Your task to perform on an android device: create a new album in the google photos Image 0: 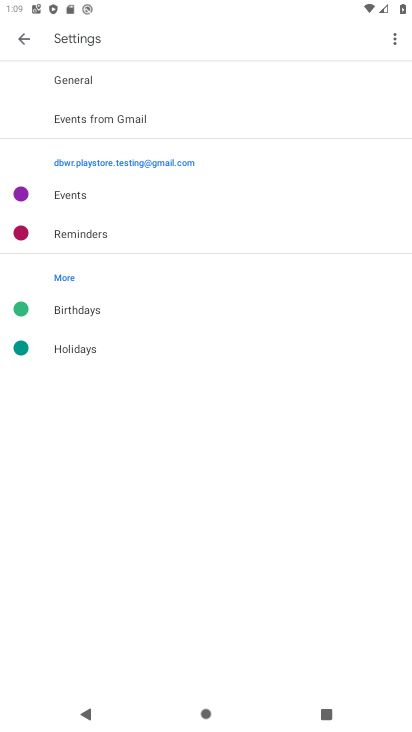
Step 0: press home button
Your task to perform on an android device: create a new album in the google photos Image 1: 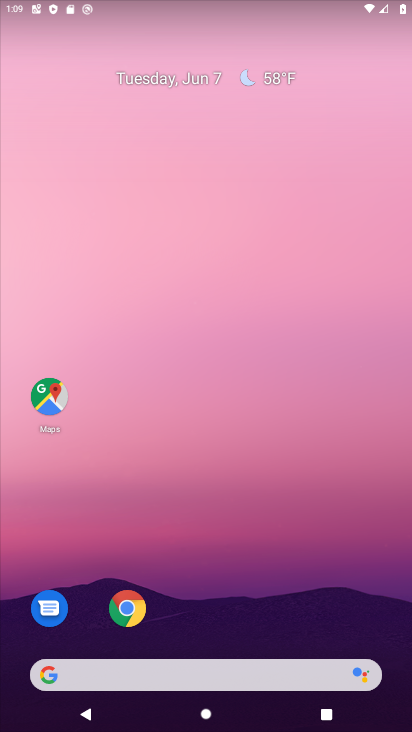
Step 1: drag from (299, 548) to (300, 75)
Your task to perform on an android device: create a new album in the google photos Image 2: 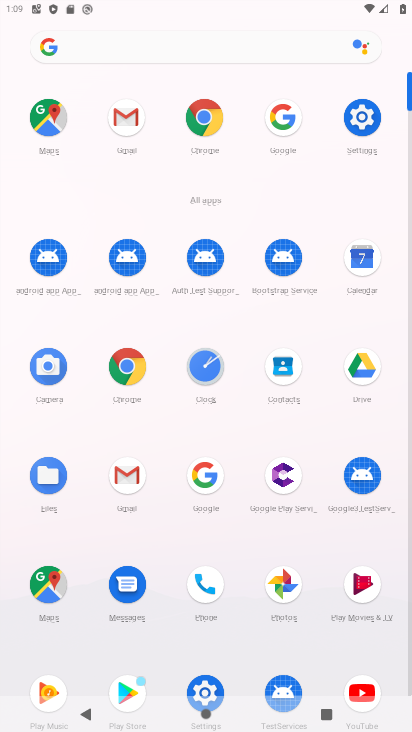
Step 2: click (288, 575)
Your task to perform on an android device: create a new album in the google photos Image 3: 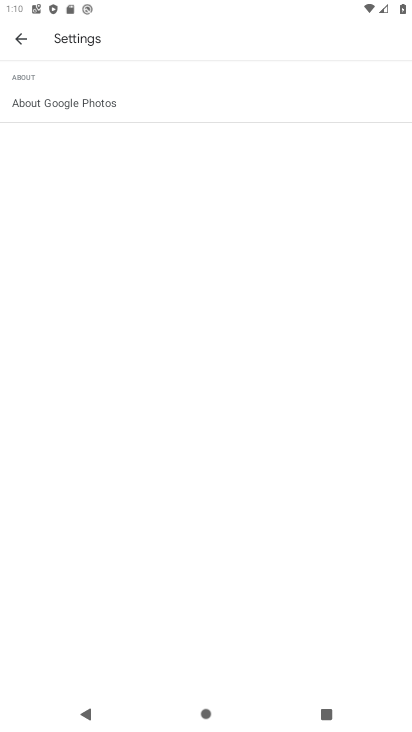
Step 3: click (27, 34)
Your task to perform on an android device: create a new album in the google photos Image 4: 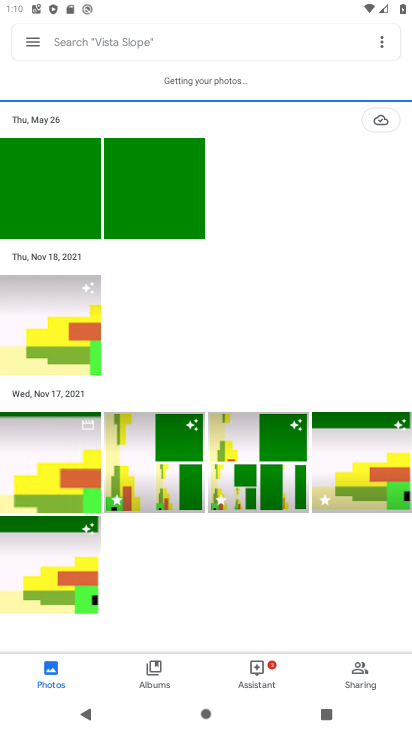
Step 4: click (161, 671)
Your task to perform on an android device: create a new album in the google photos Image 5: 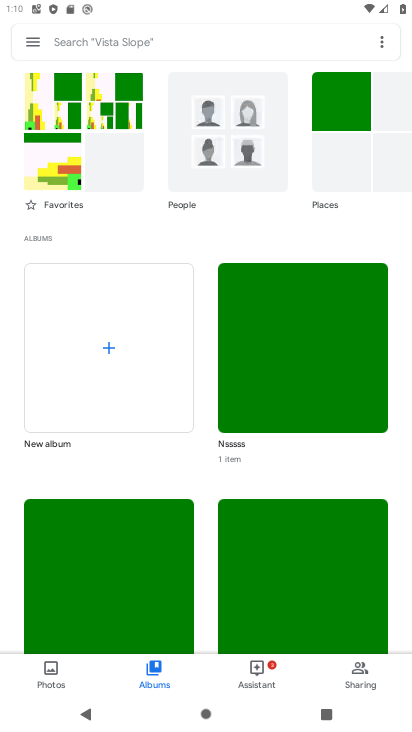
Step 5: click (125, 349)
Your task to perform on an android device: create a new album in the google photos Image 6: 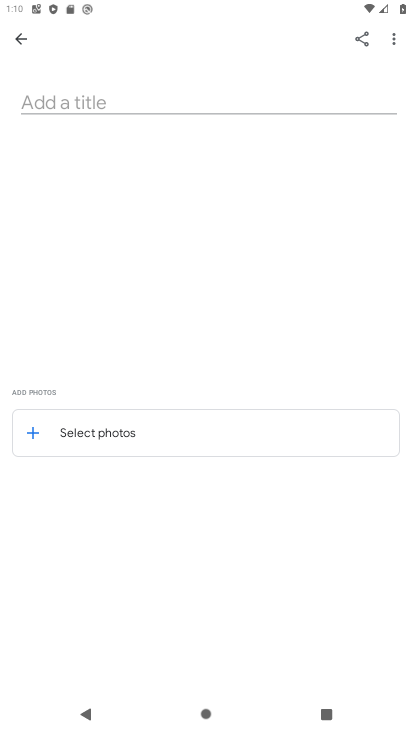
Step 6: click (181, 97)
Your task to perform on an android device: create a new album in the google photos Image 7: 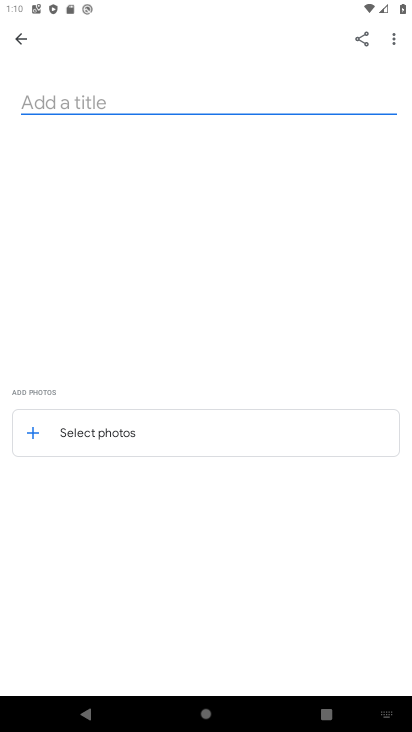
Step 7: type "shadi"
Your task to perform on an android device: create a new album in the google photos Image 8: 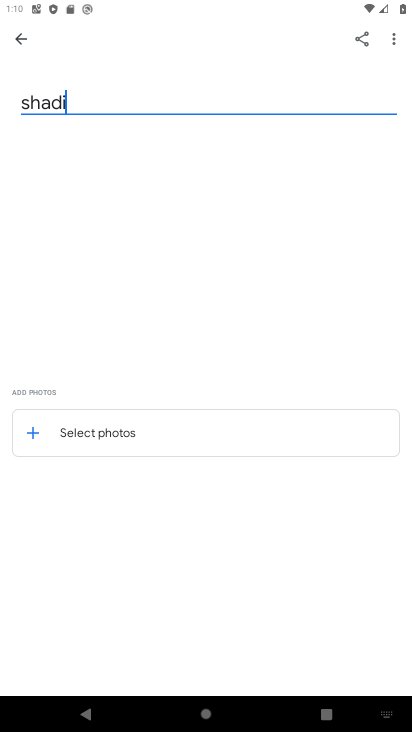
Step 8: type ""
Your task to perform on an android device: create a new album in the google photos Image 9: 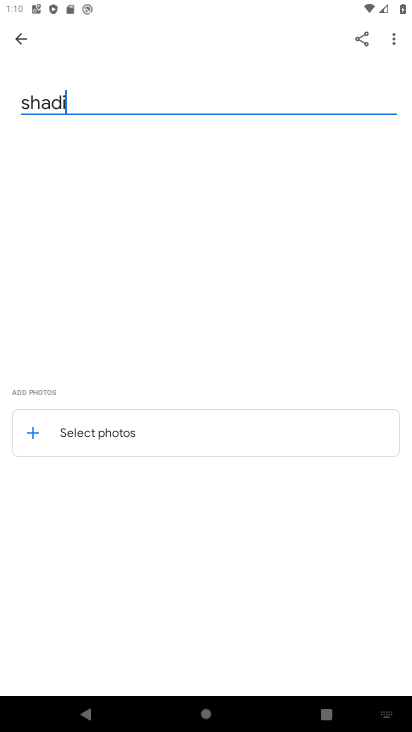
Step 9: click (163, 440)
Your task to perform on an android device: create a new album in the google photos Image 10: 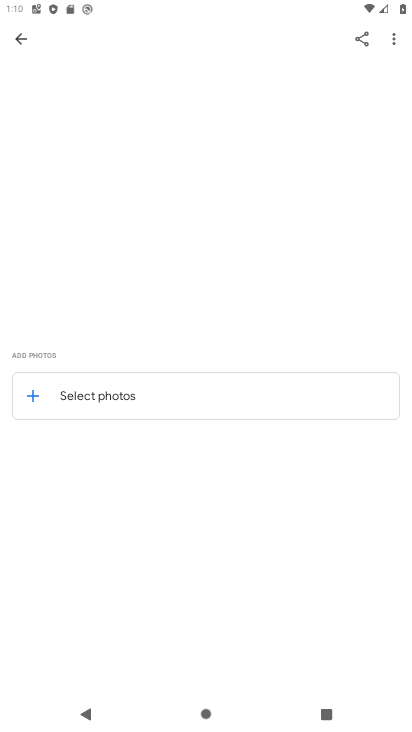
Step 10: click (122, 394)
Your task to perform on an android device: create a new album in the google photos Image 11: 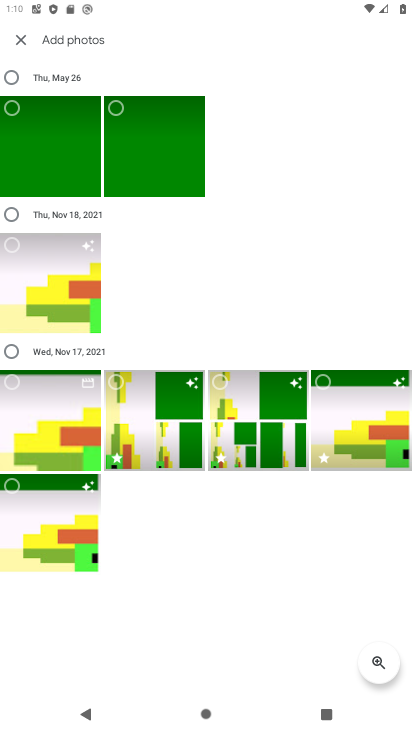
Step 11: click (36, 284)
Your task to perform on an android device: create a new album in the google photos Image 12: 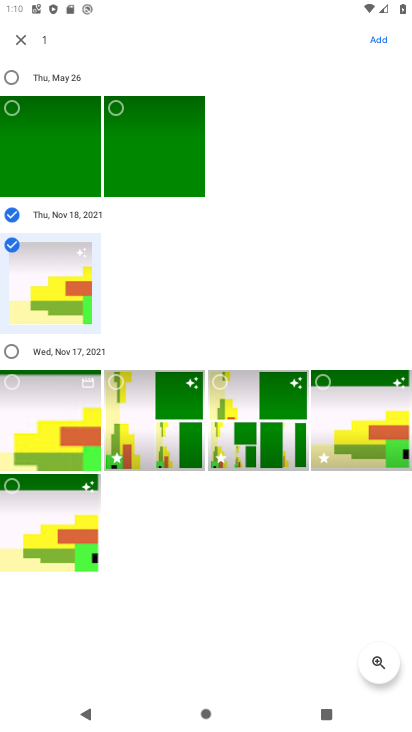
Step 12: click (373, 46)
Your task to perform on an android device: create a new album in the google photos Image 13: 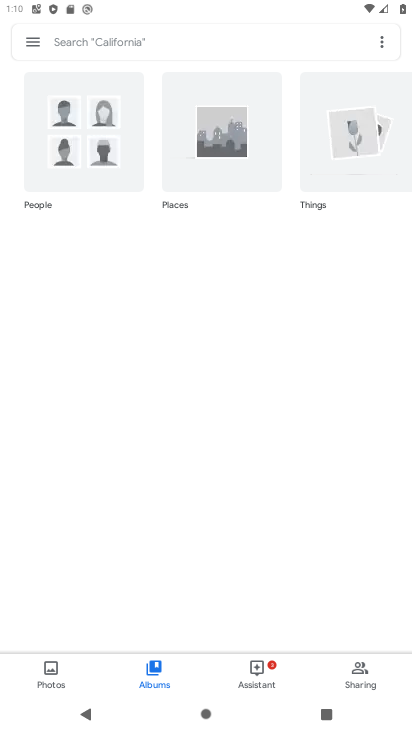
Step 13: task complete